Your task to perform on an android device: toggle airplane mode Image 0: 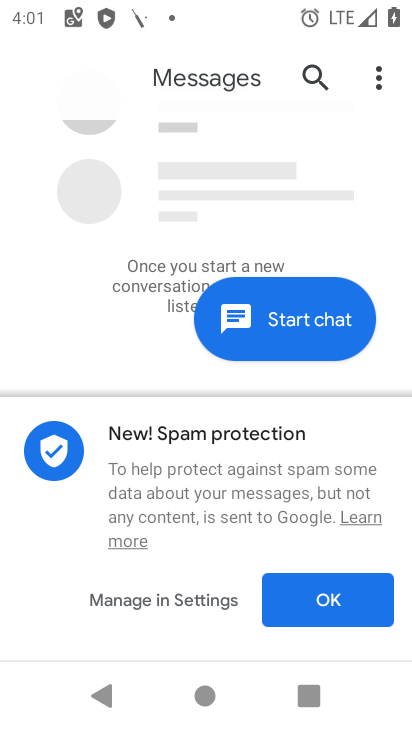
Step 0: press home button
Your task to perform on an android device: toggle airplane mode Image 1: 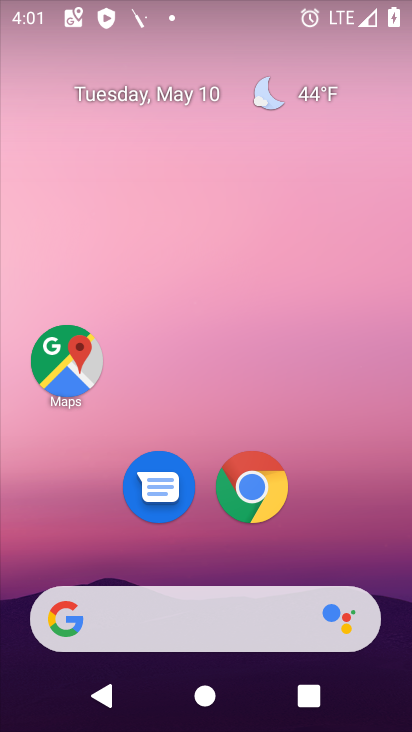
Step 1: drag from (303, 4) to (266, 426)
Your task to perform on an android device: toggle airplane mode Image 2: 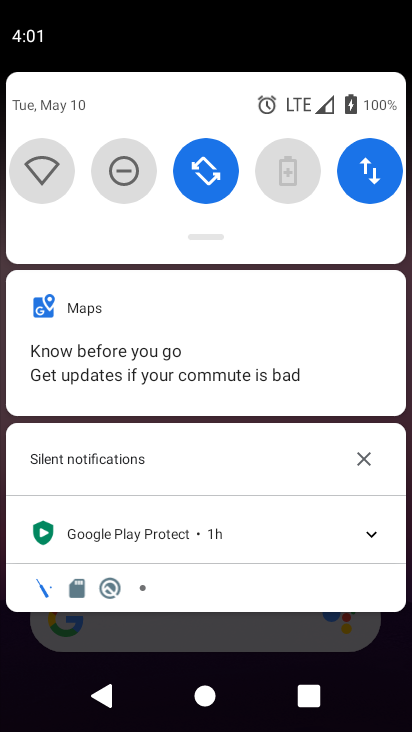
Step 2: drag from (281, 228) to (241, 567)
Your task to perform on an android device: toggle airplane mode Image 3: 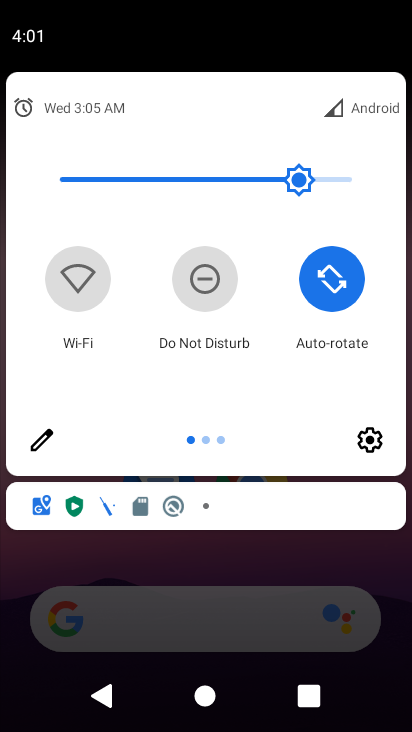
Step 3: drag from (342, 329) to (71, 309)
Your task to perform on an android device: toggle airplane mode Image 4: 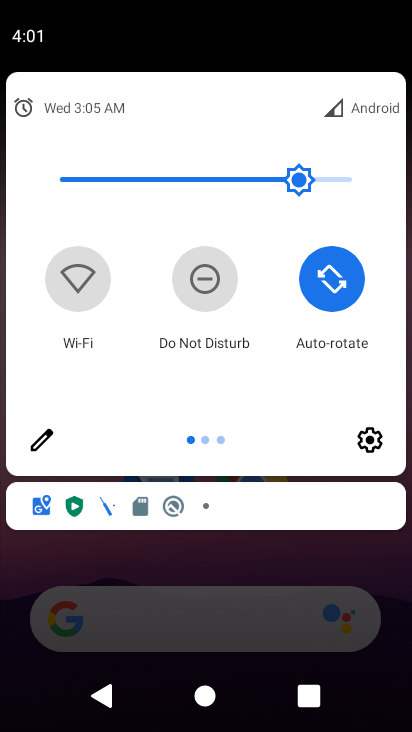
Step 4: drag from (371, 330) to (68, 312)
Your task to perform on an android device: toggle airplane mode Image 5: 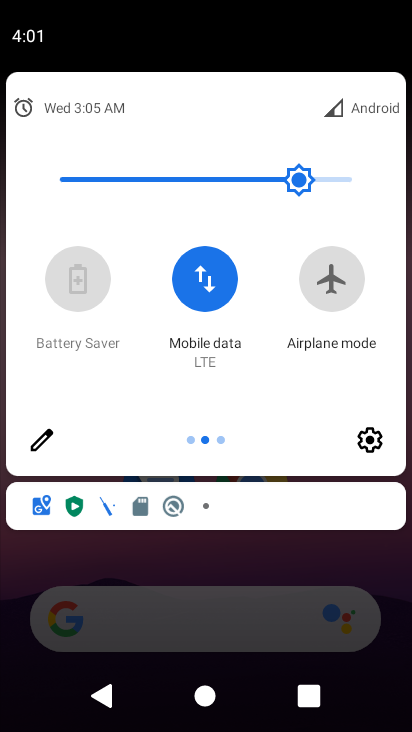
Step 5: click (336, 277)
Your task to perform on an android device: toggle airplane mode Image 6: 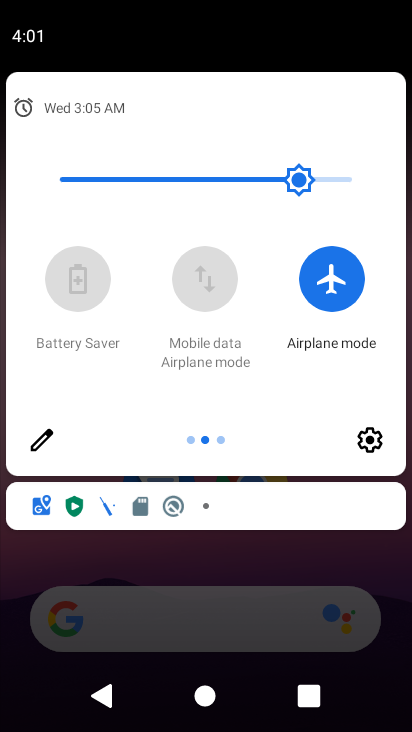
Step 6: task complete